Your task to perform on an android device: Open accessibility settings Image 0: 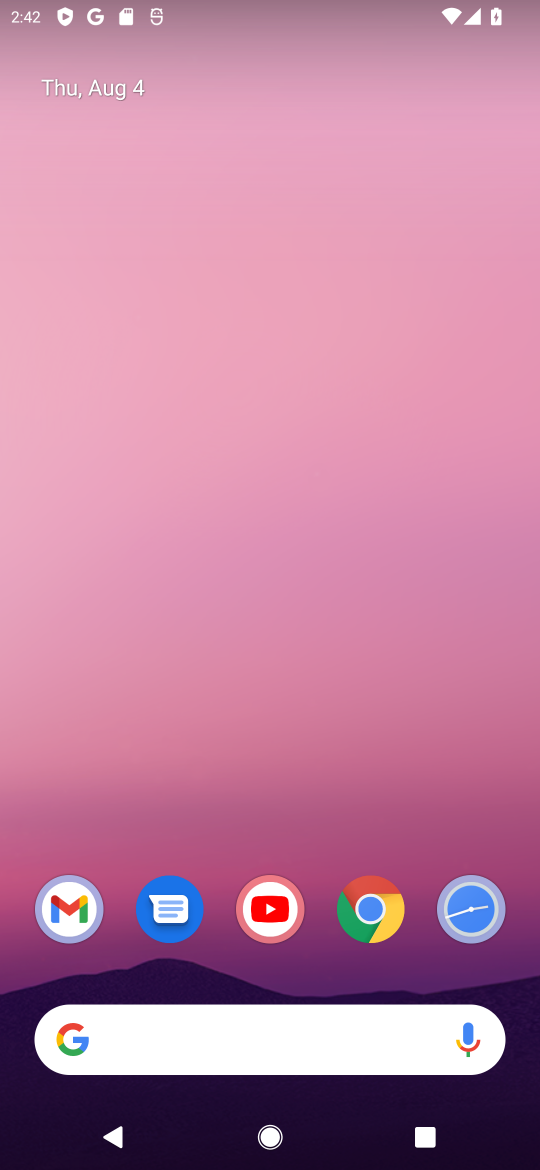
Step 0: drag from (282, 1042) to (530, 217)
Your task to perform on an android device: Open accessibility settings Image 1: 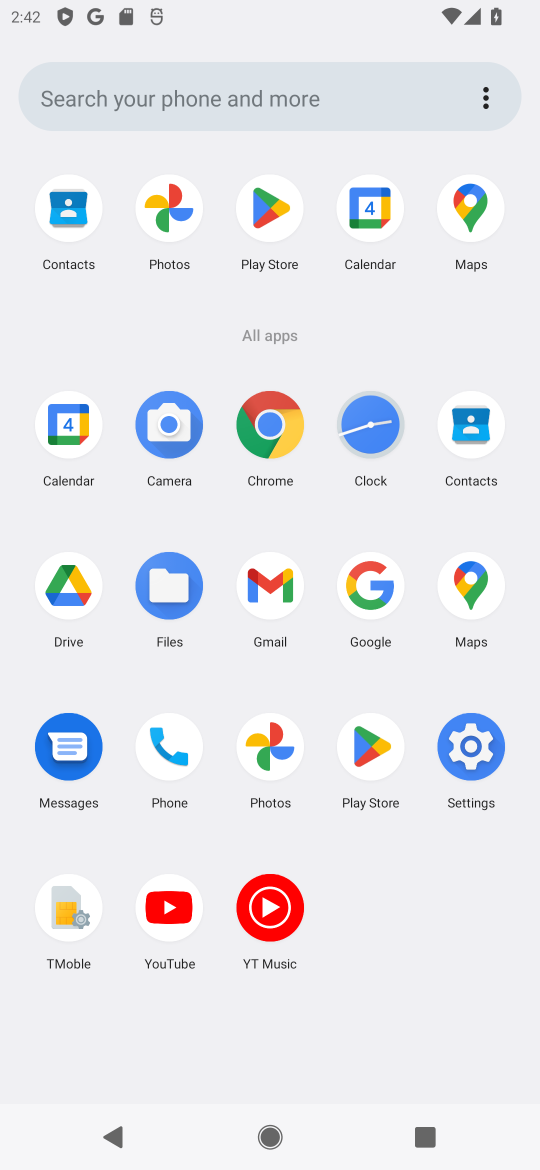
Step 1: click (475, 762)
Your task to perform on an android device: Open accessibility settings Image 2: 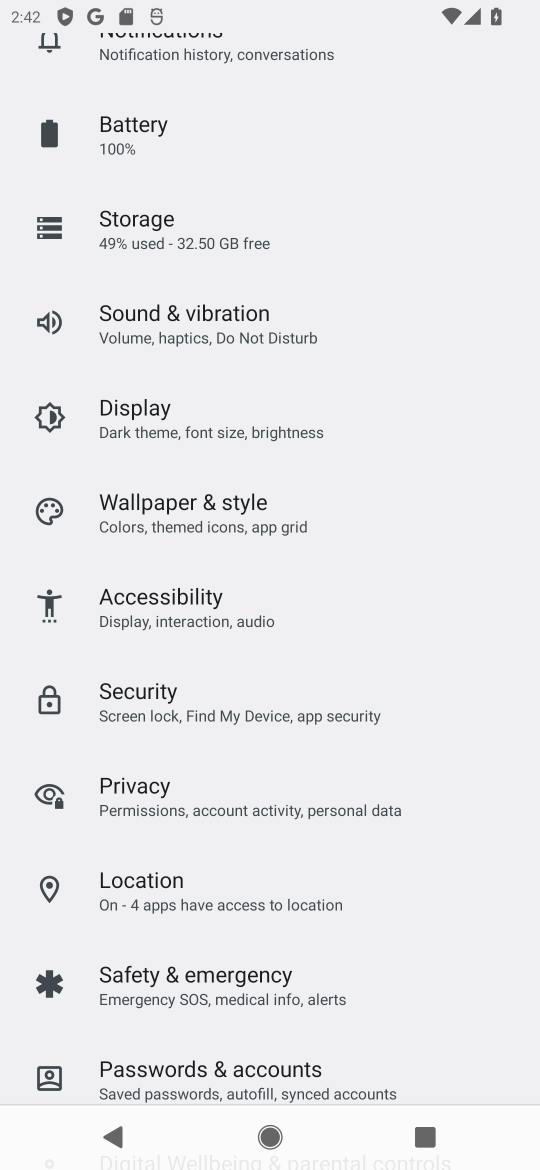
Step 2: drag from (304, 1005) to (535, 164)
Your task to perform on an android device: Open accessibility settings Image 3: 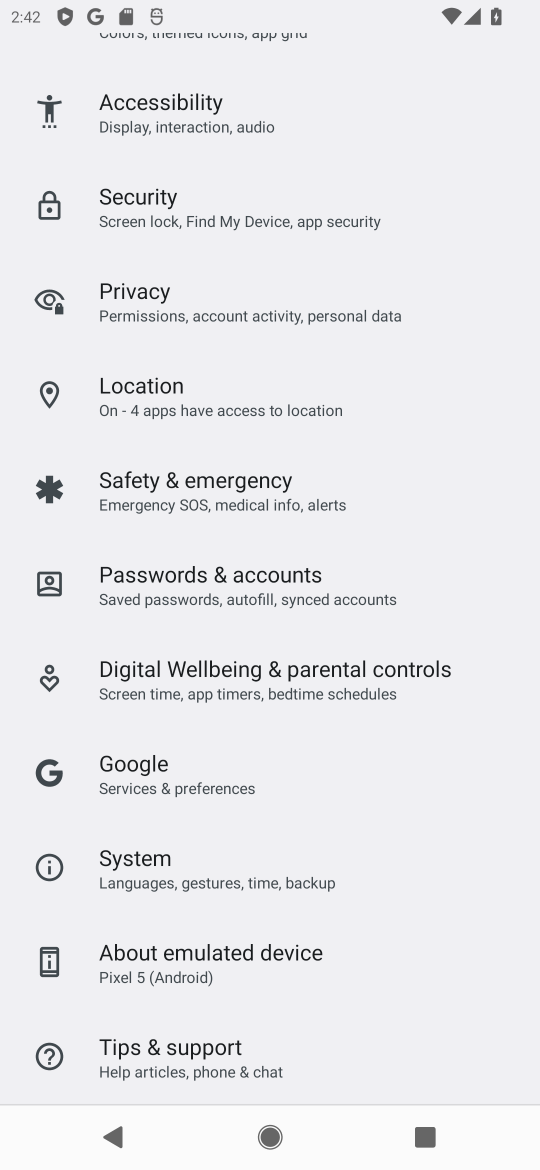
Step 3: drag from (281, 956) to (371, 559)
Your task to perform on an android device: Open accessibility settings Image 4: 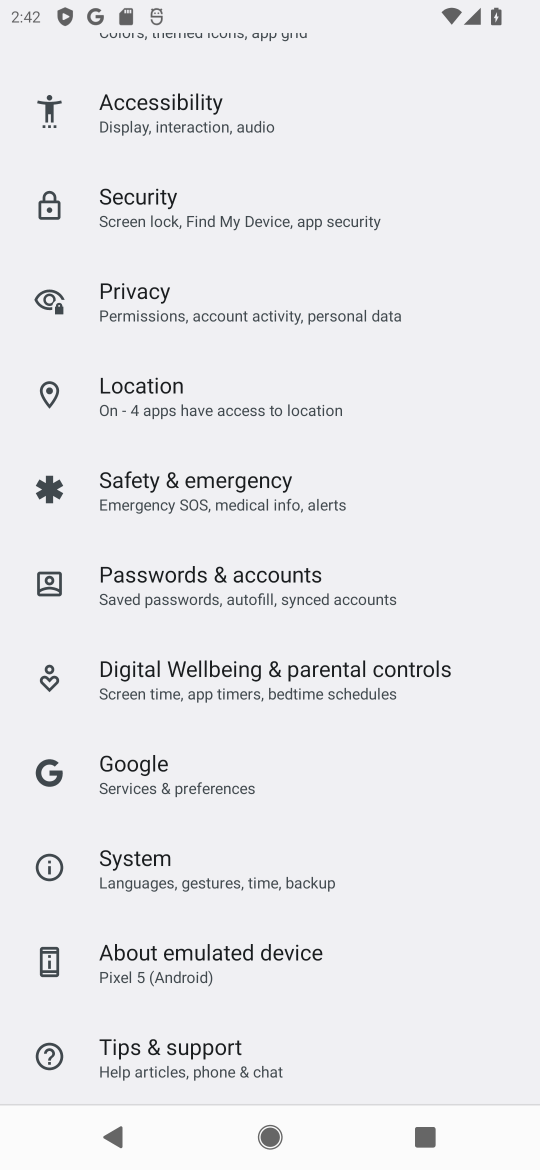
Step 4: click (209, 102)
Your task to perform on an android device: Open accessibility settings Image 5: 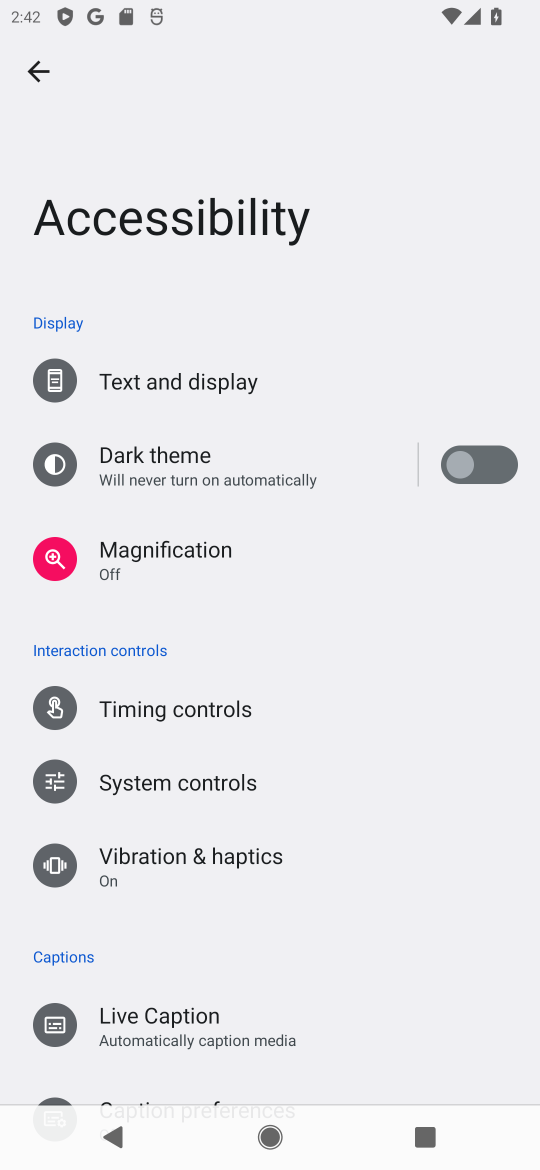
Step 5: task complete